Your task to perform on an android device: What's the weather like in Hong Kong? Image 0: 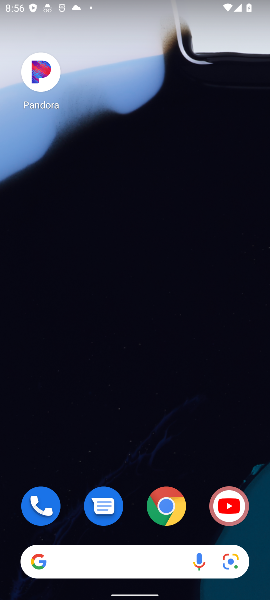
Step 0: click (168, 503)
Your task to perform on an android device: What's the weather like in Hong Kong? Image 1: 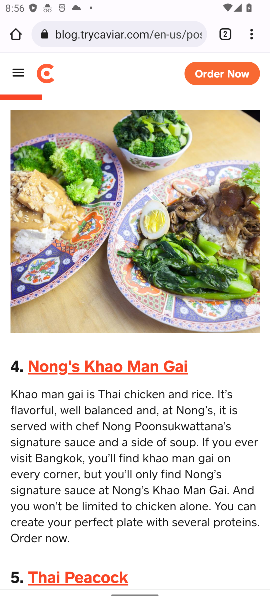
Step 1: click (186, 35)
Your task to perform on an android device: What's the weather like in Hong Kong? Image 2: 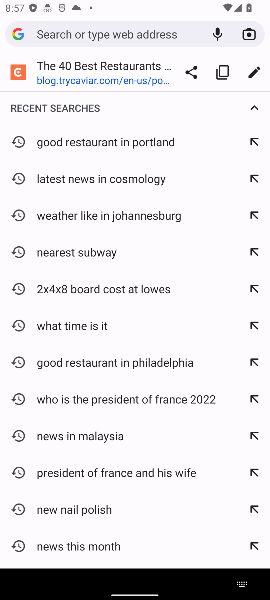
Step 2: type "weather like in Hong Kong"
Your task to perform on an android device: What's the weather like in Hong Kong? Image 3: 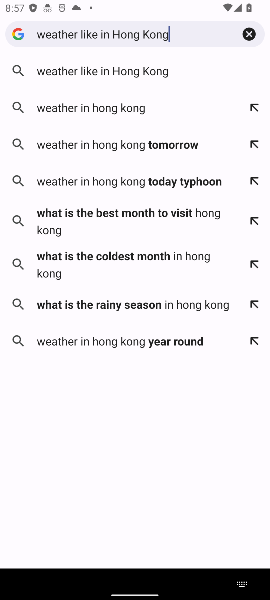
Step 3: click (111, 69)
Your task to perform on an android device: What's the weather like in Hong Kong? Image 4: 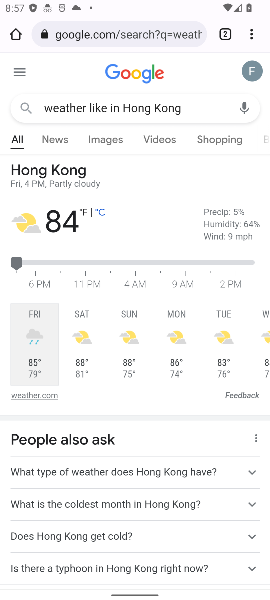
Step 4: task complete